Your task to perform on an android device: turn on priority inbox in the gmail app Image 0: 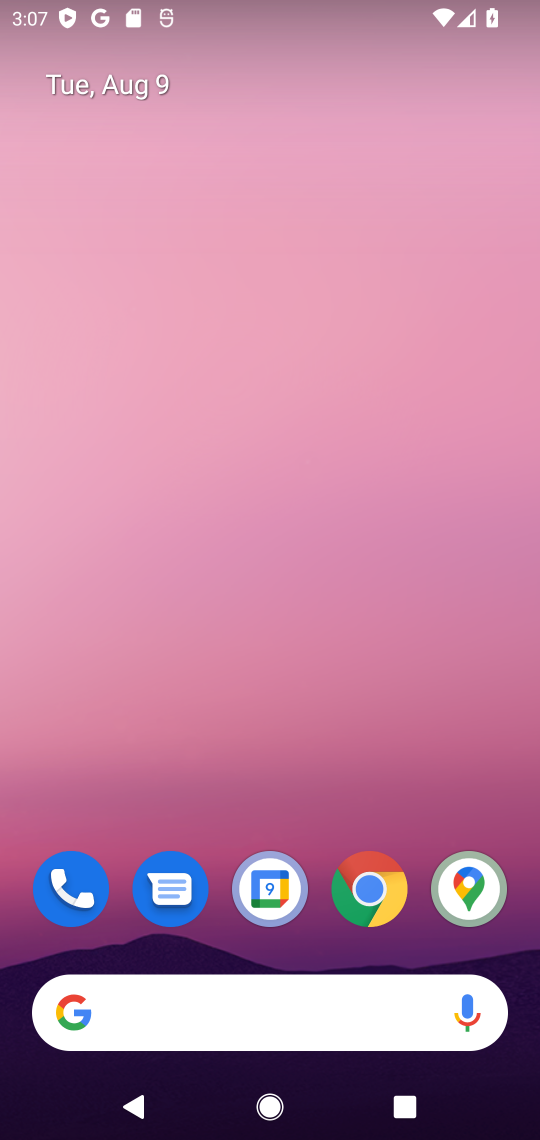
Step 0: drag from (304, 768) to (357, 1)
Your task to perform on an android device: turn on priority inbox in the gmail app Image 1: 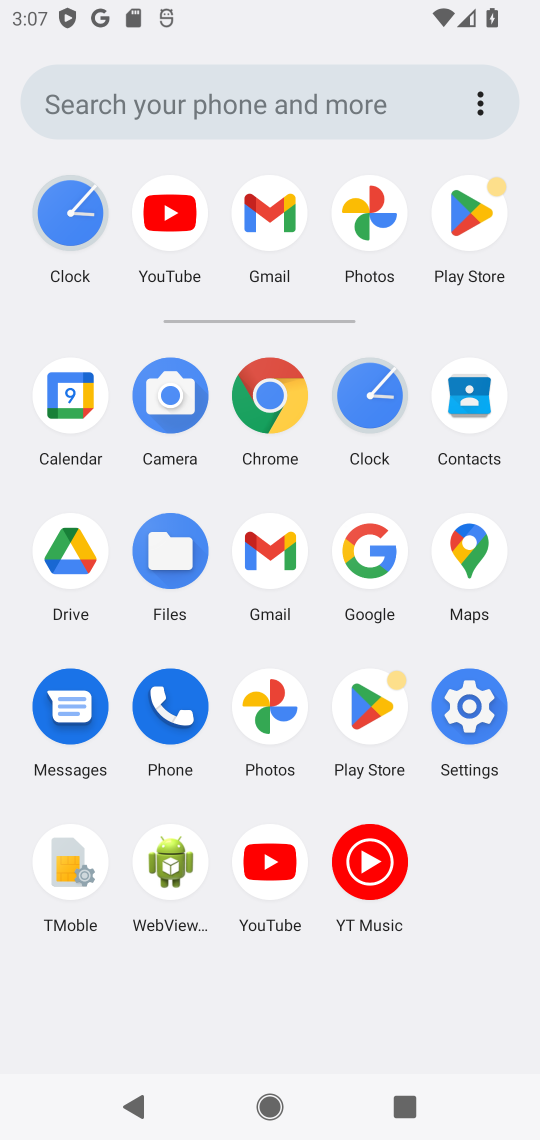
Step 1: click (281, 219)
Your task to perform on an android device: turn on priority inbox in the gmail app Image 2: 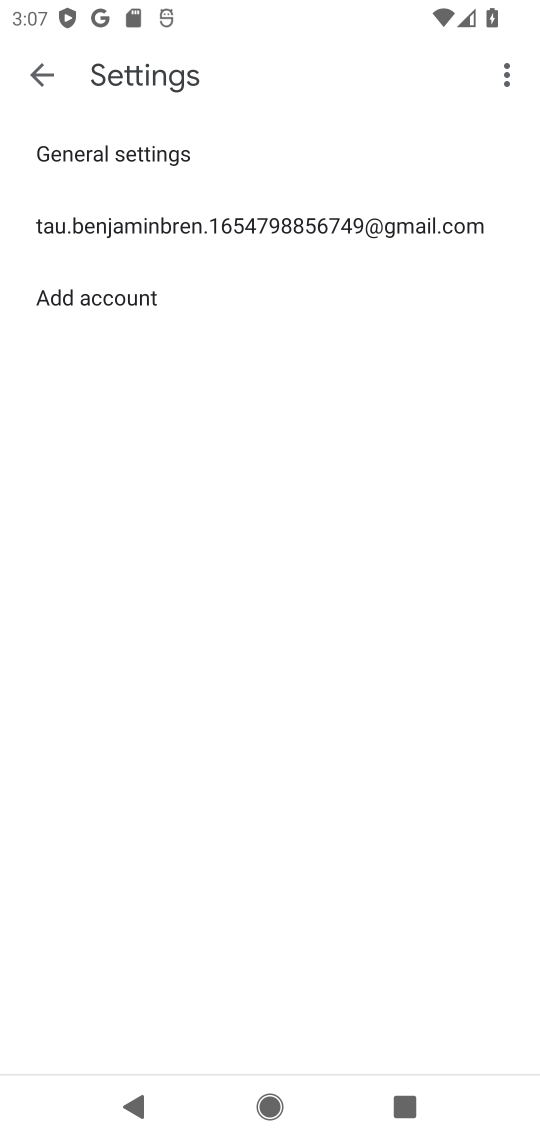
Step 2: click (281, 219)
Your task to perform on an android device: turn on priority inbox in the gmail app Image 3: 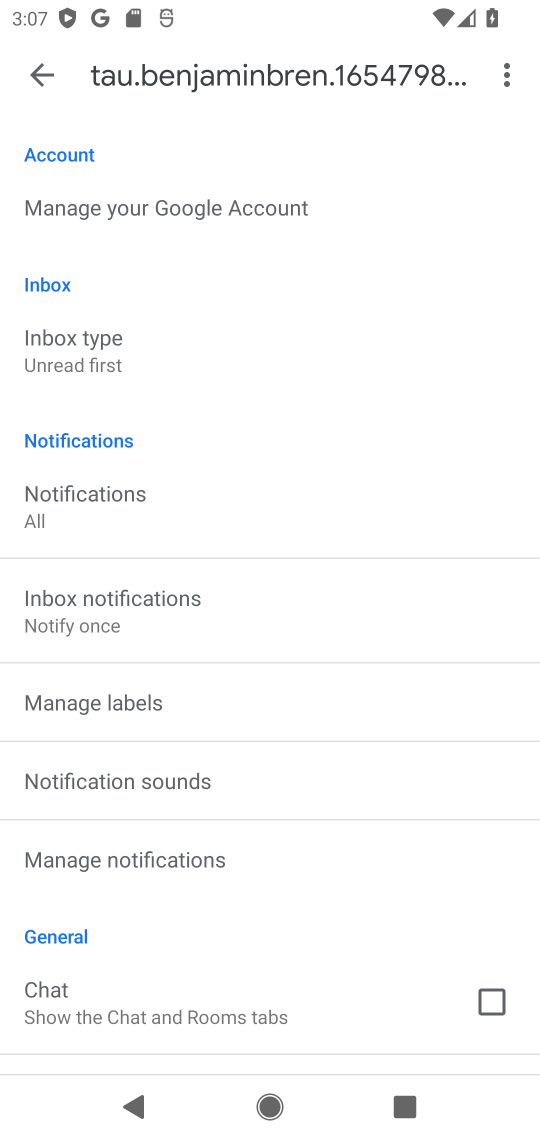
Step 3: click (107, 353)
Your task to perform on an android device: turn on priority inbox in the gmail app Image 4: 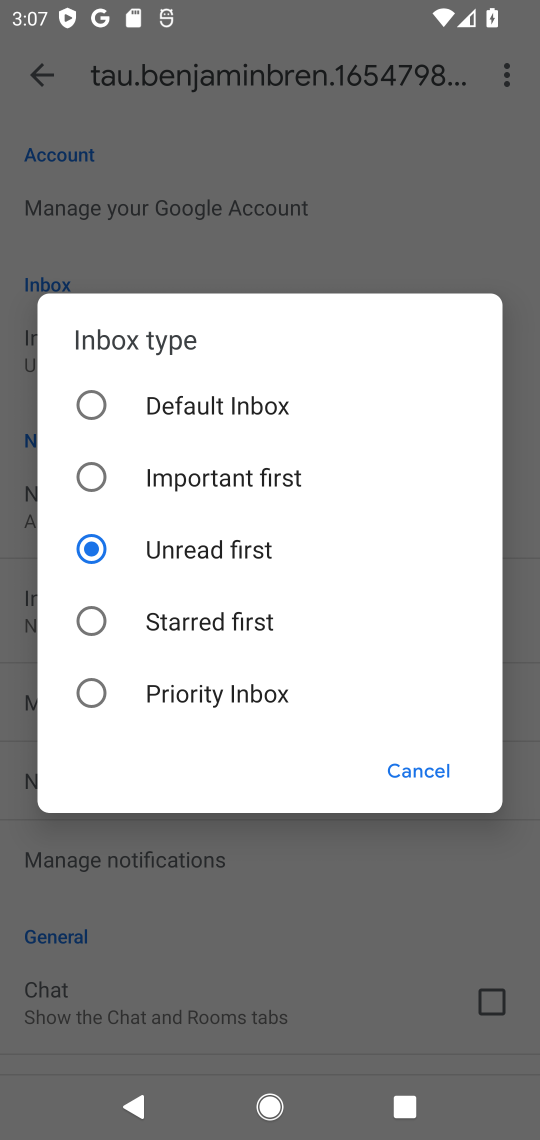
Step 4: click (95, 684)
Your task to perform on an android device: turn on priority inbox in the gmail app Image 5: 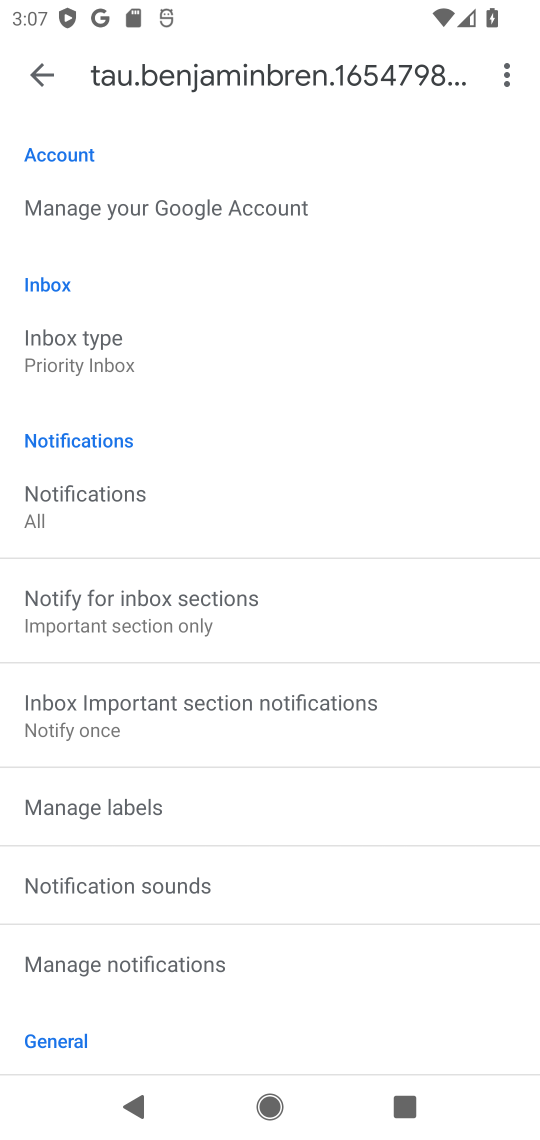
Step 5: task complete